Your task to perform on an android device: open app "LinkedIn" (install if not already installed) Image 0: 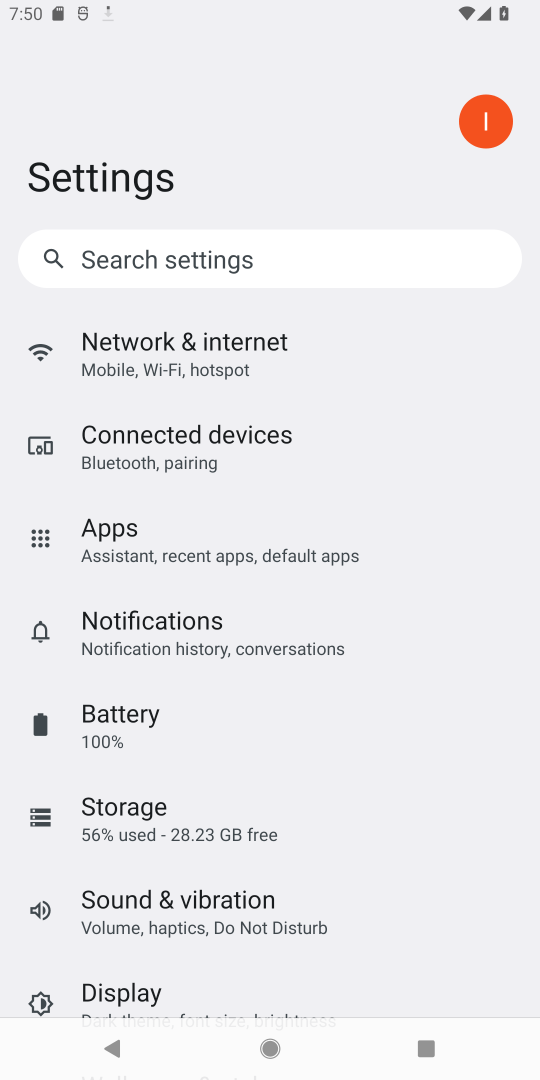
Step 0: press home button
Your task to perform on an android device: open app "LinkedIn" (install if not already installed) Image 1: 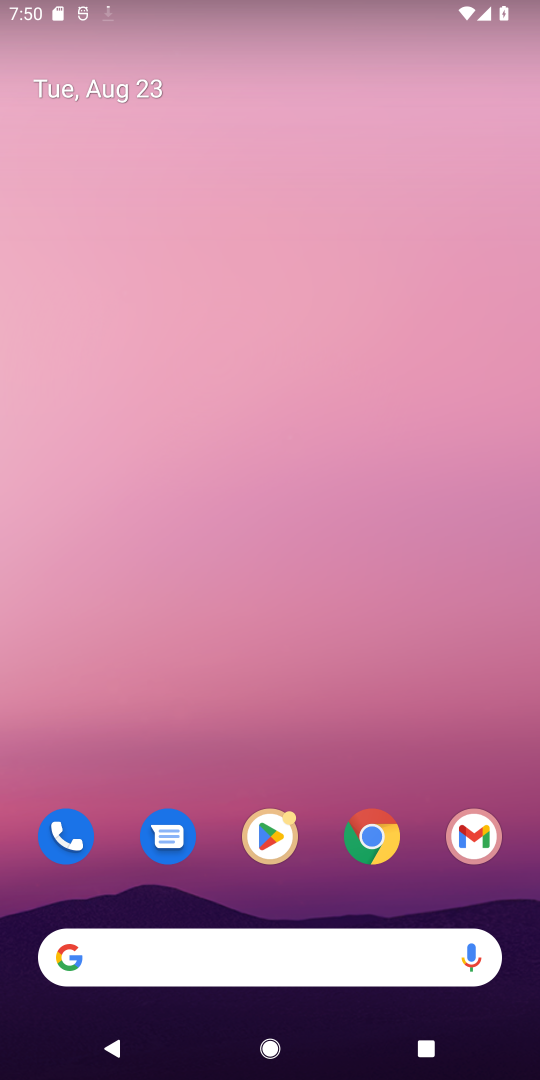
Step 1: click (266, 843)
Your task to perform on an android device: open app "LinkedIn" (install if not already installed) Image 2: 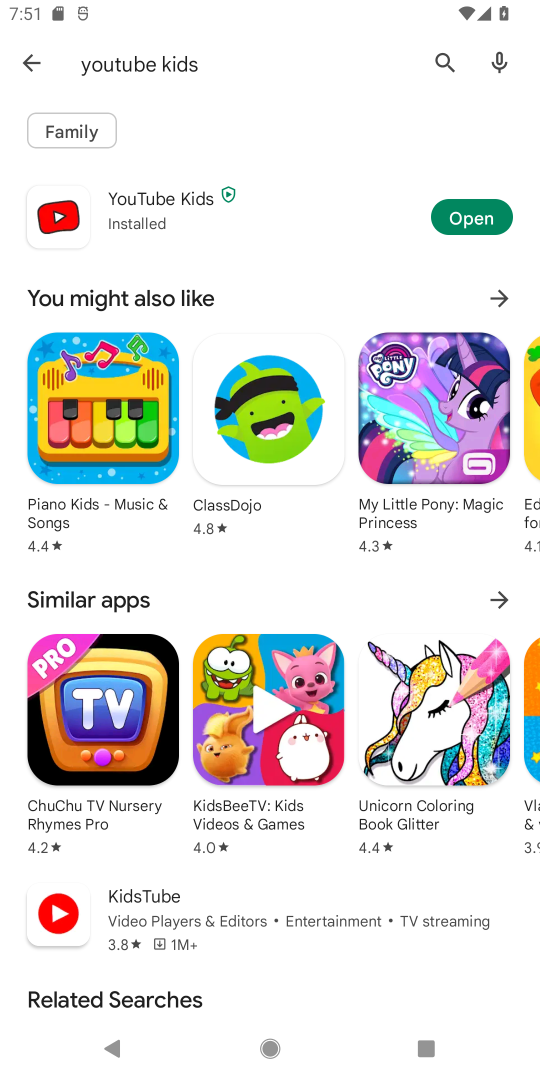
Step 2: click (30, 64)
Your task to perform on an android device: open app "LinkedIn" (install if not already installed) Image 3: 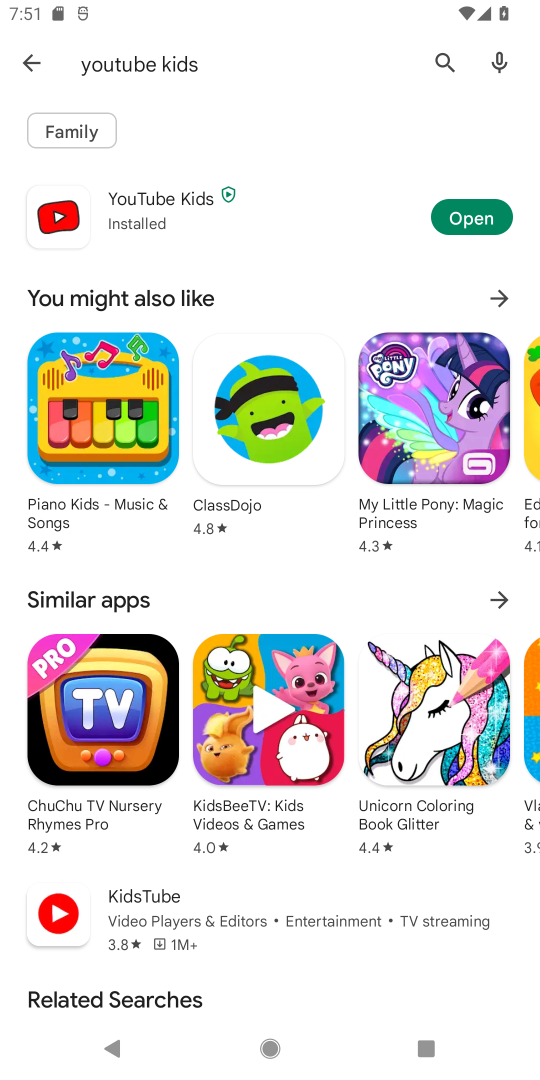
Step 3: click (441, 51)
Your task to perform on an android device: open app "LinkedIn" (install if not already installed) Image 4: 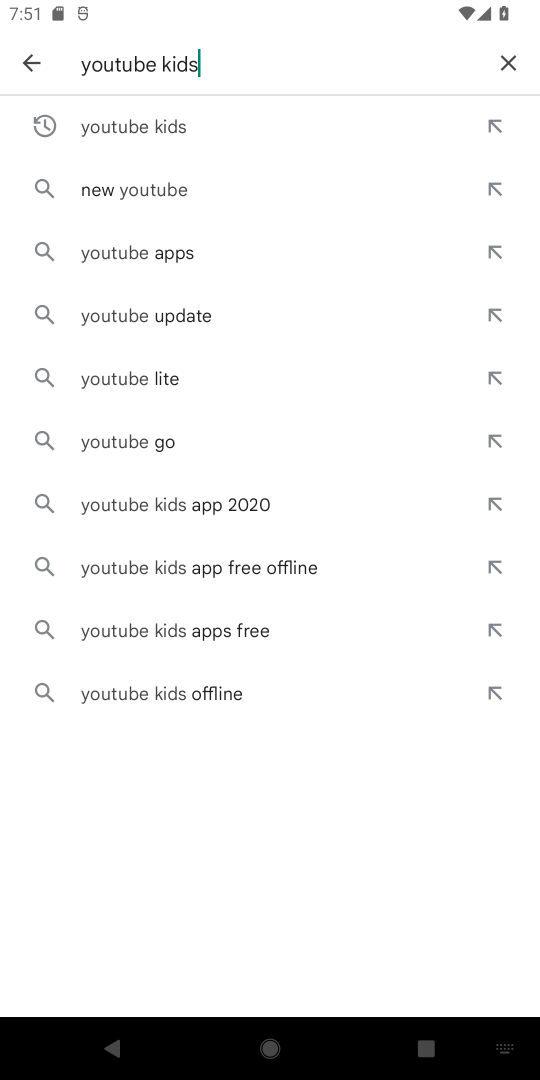
Step 4: click (512, 67)
Your task to perform on an android device: open app "LinkedIn" (install if not already installed) Image 5: 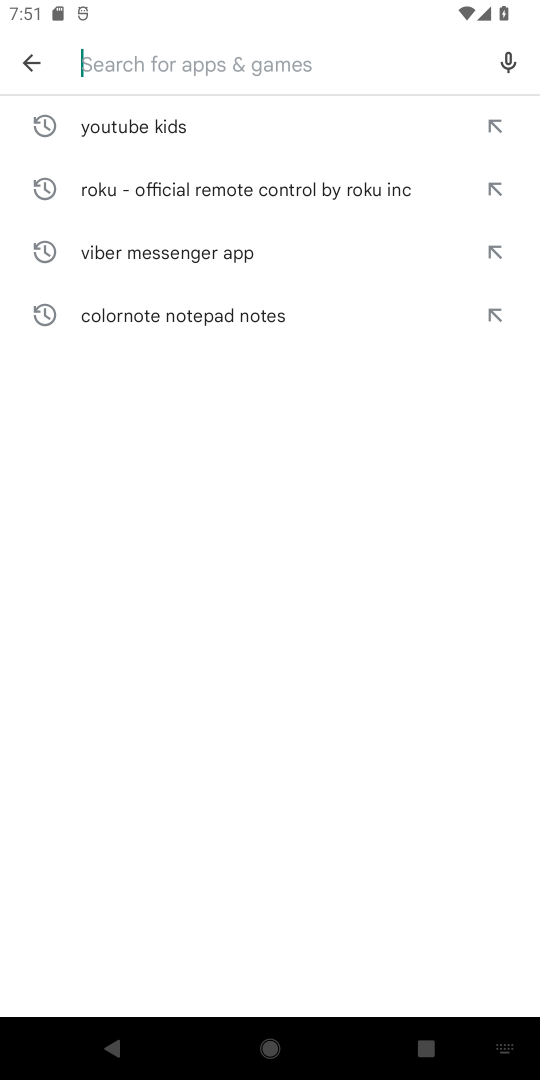
Step 5: type "LinkedIn"
Your task to perform on an android device: open app "LinkedIn" (install if not already installed) Image 6: 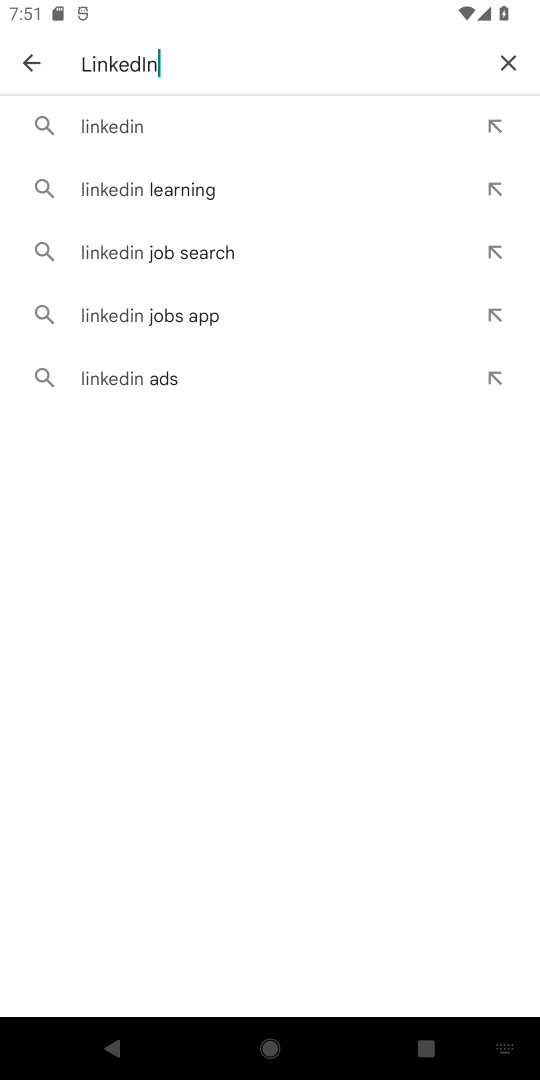
Step 6: click (115, 128)
Your task to perform on an android device: open app "LinkedIn" (install if not already installed) Image 7: 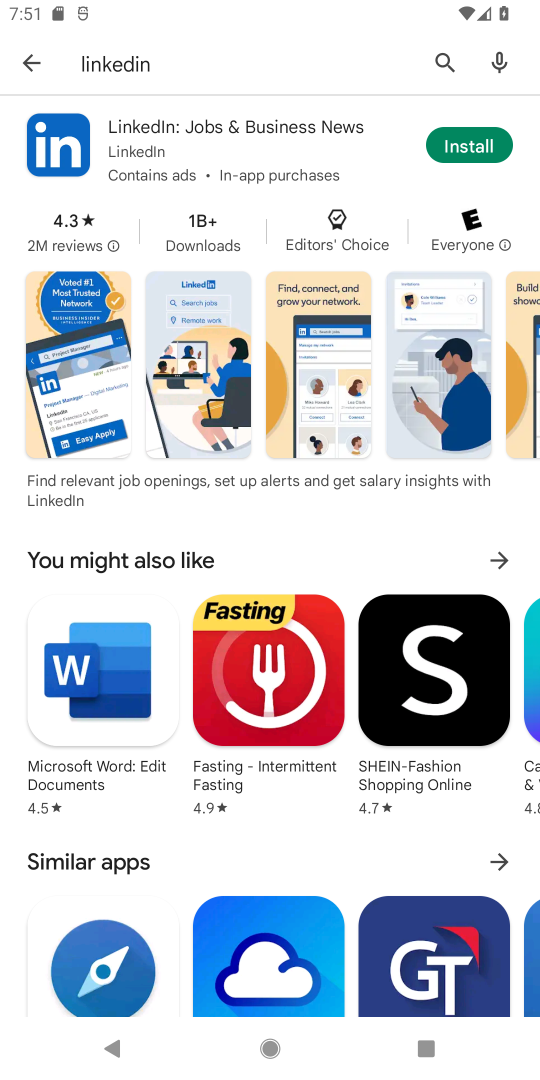
Step 7: click (478, 141)
Your task to perform on an android device: open app "LinkedIn" (install if not already installed) Image 8: 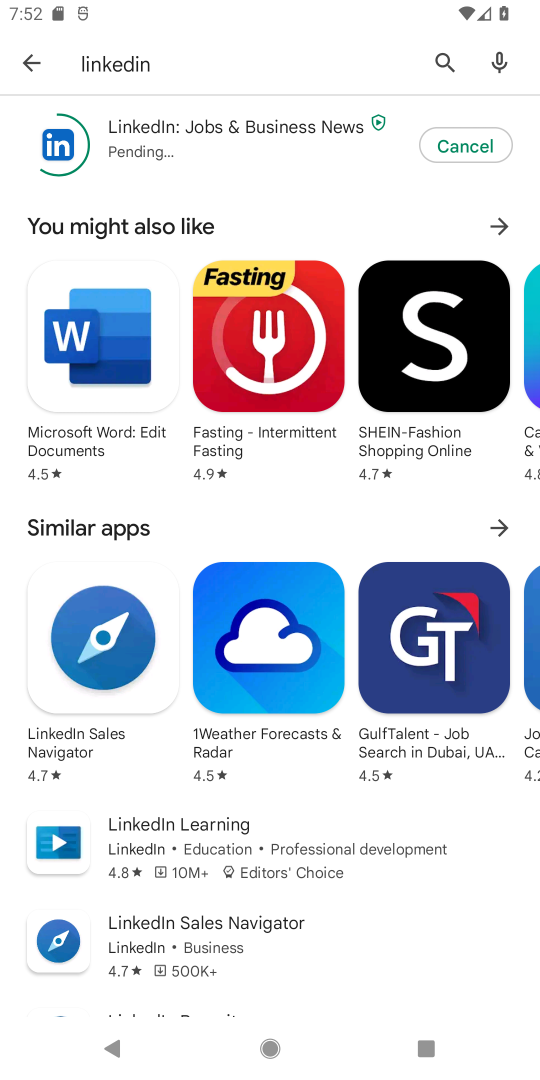
Step 8: click (178, 56)
Your task to perform on an android device: open app "LinkedIn" (install if not already installed) Image 9: 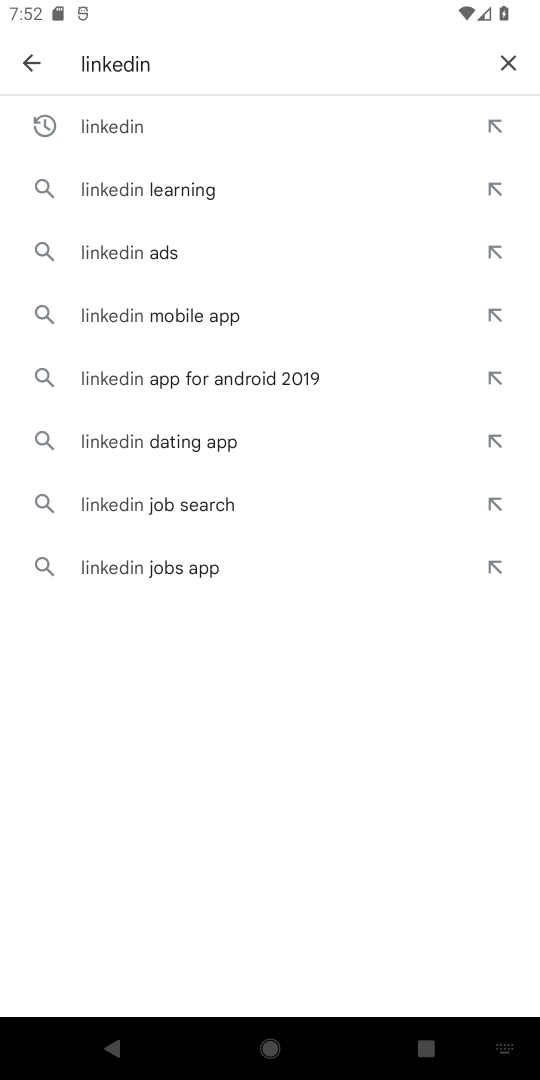
Step 9: click (100, 130)
Your task to perform on an android device: open app "LinkedIn" (install if not already installed) Image 10: 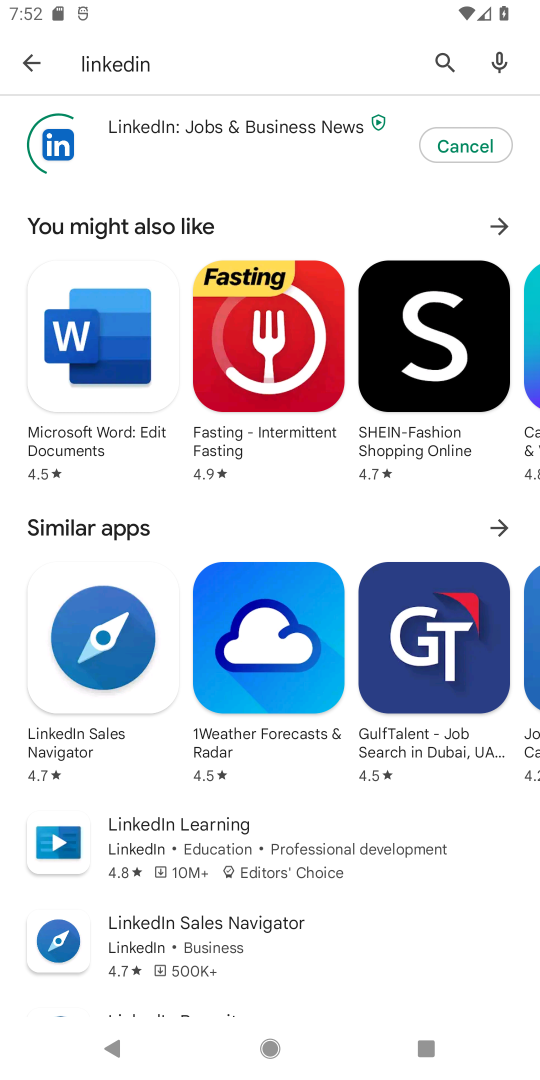
Step 10: click (31, 62)
Your task to perform on an android device: open app "LinkedIn" (install if not already installed) Image 11: 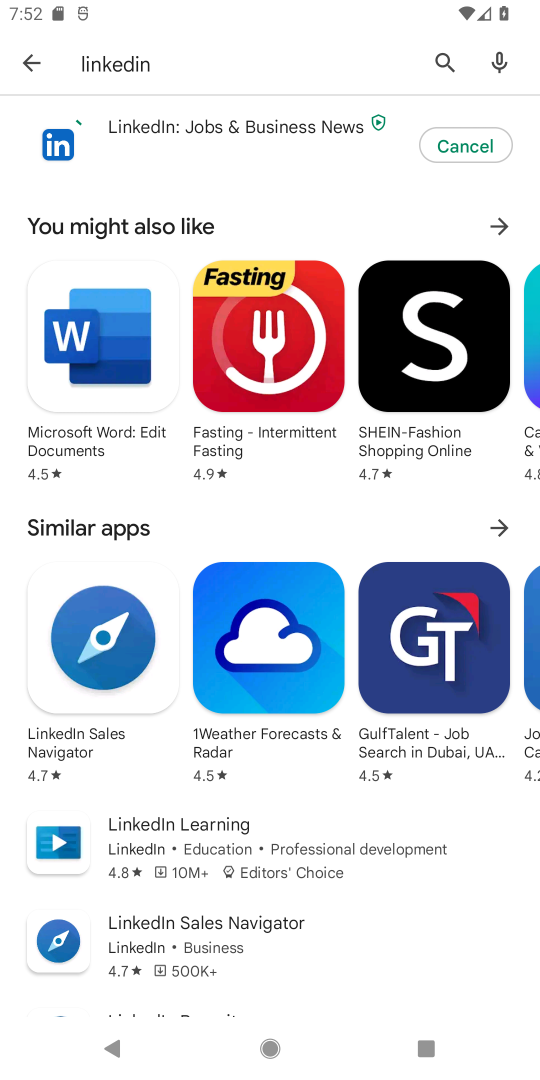
Step 11: press home button
Your task to perform on an android device: open app "LinkedIn" (install if not already installed) Image 12: 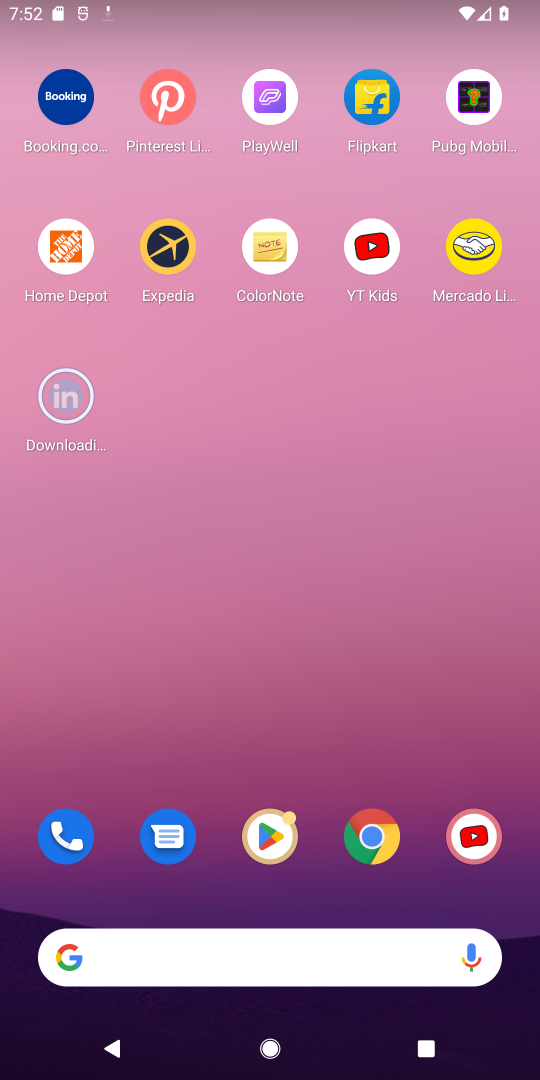
Step 12: click (269, 836)
Your task to perform on an android device: open app "LinkedIn" (install if not already installed) Image 13: 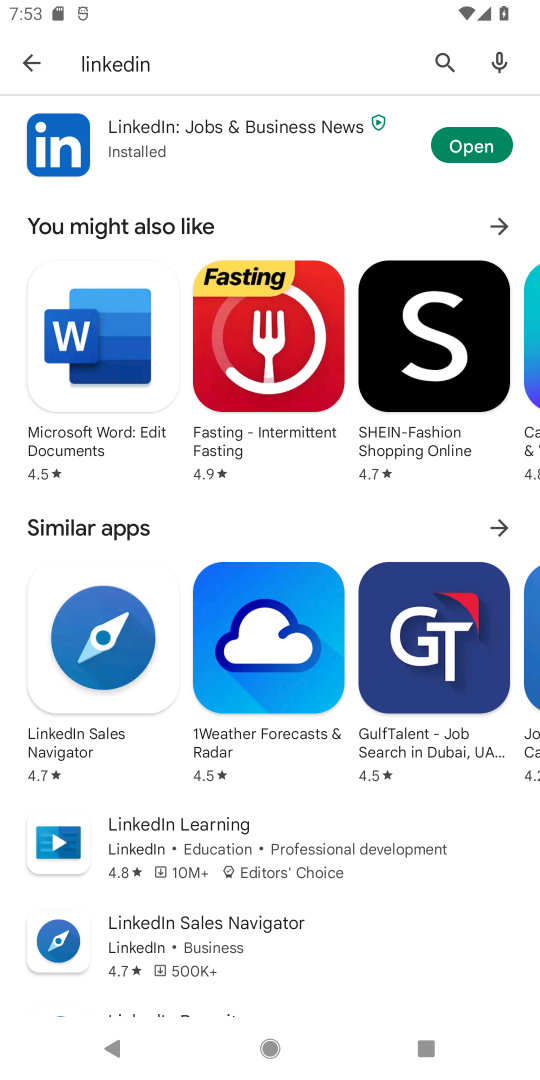
Step 13: click (452, 147)
Your task to perform on an android device: open app "LinkedIn" (install if not already installed) Image 14: 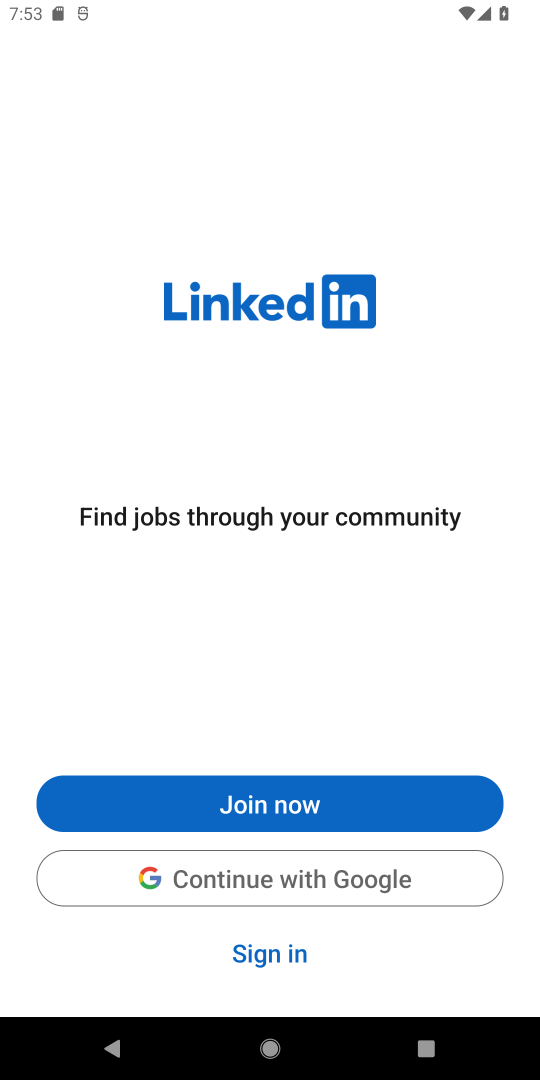
Step 14: task complete